Your task to perform on an android device: Open Chrome and go to settings Image 0: 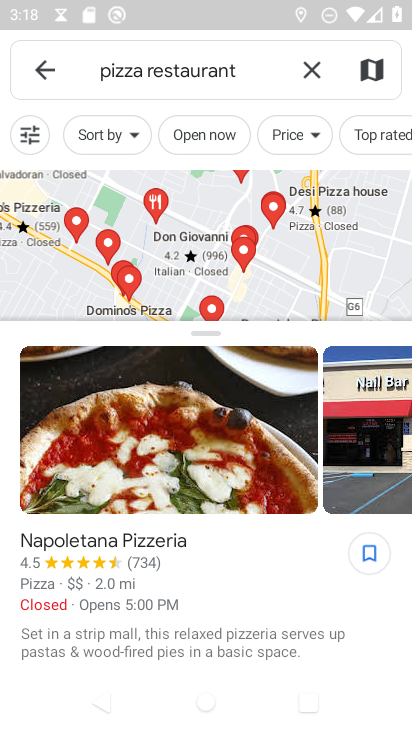
Step 0: press home button
Your task to perform on an android device: Open Chrome and go to settings Image 1: 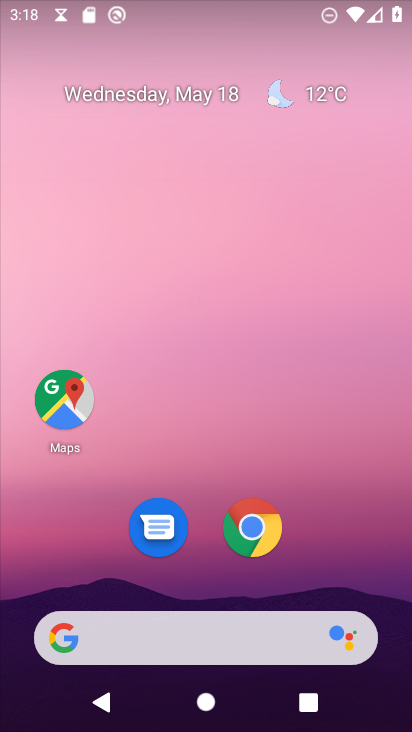
Step 1: click (256, 531)
Your task to perform on an android device: Open Chrome and go to settings Image 2: 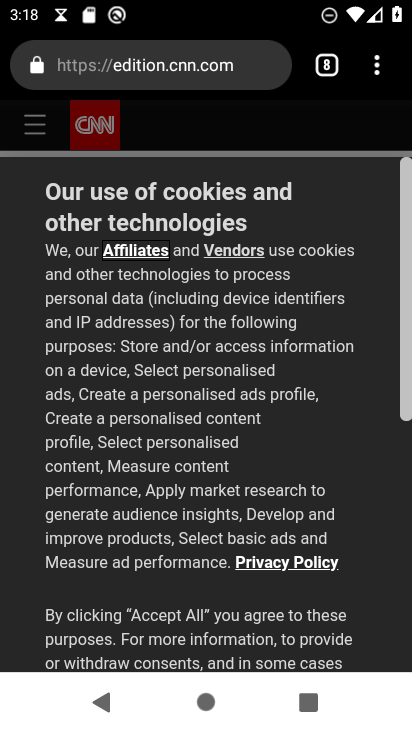
Step 2: click (378, 60)
Your task to perform on an android device: Open Chrome and go to settings Image 3: 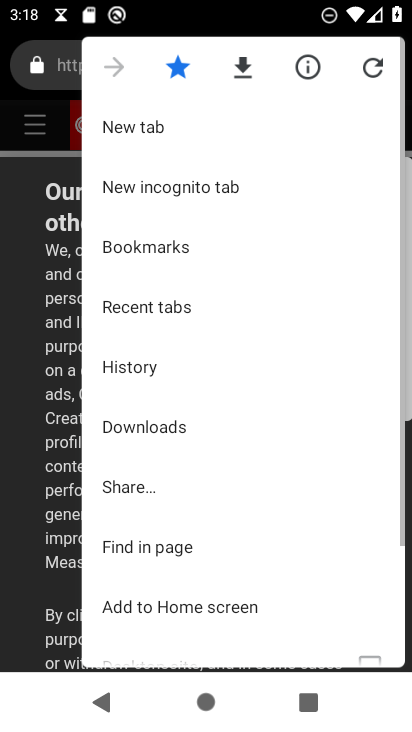
Step 3: drag from (226, 523) to (198, 160)
Your task to perform on an android device: Open Chrome and go to settings Image 4: 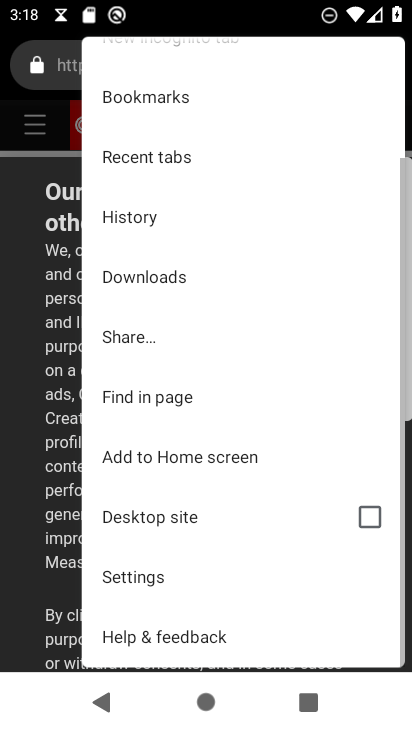
Step 4: click (205, 573)
Your task to perform on an android device: Open Chrome and go to settings Image 5: 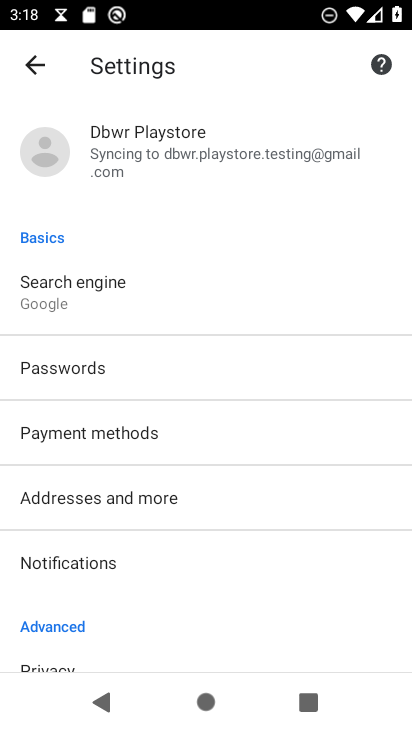
Step 5: task complete